Your task to perform on an android device: uninstall "Upside-Cash back on gas & food" Image 0: 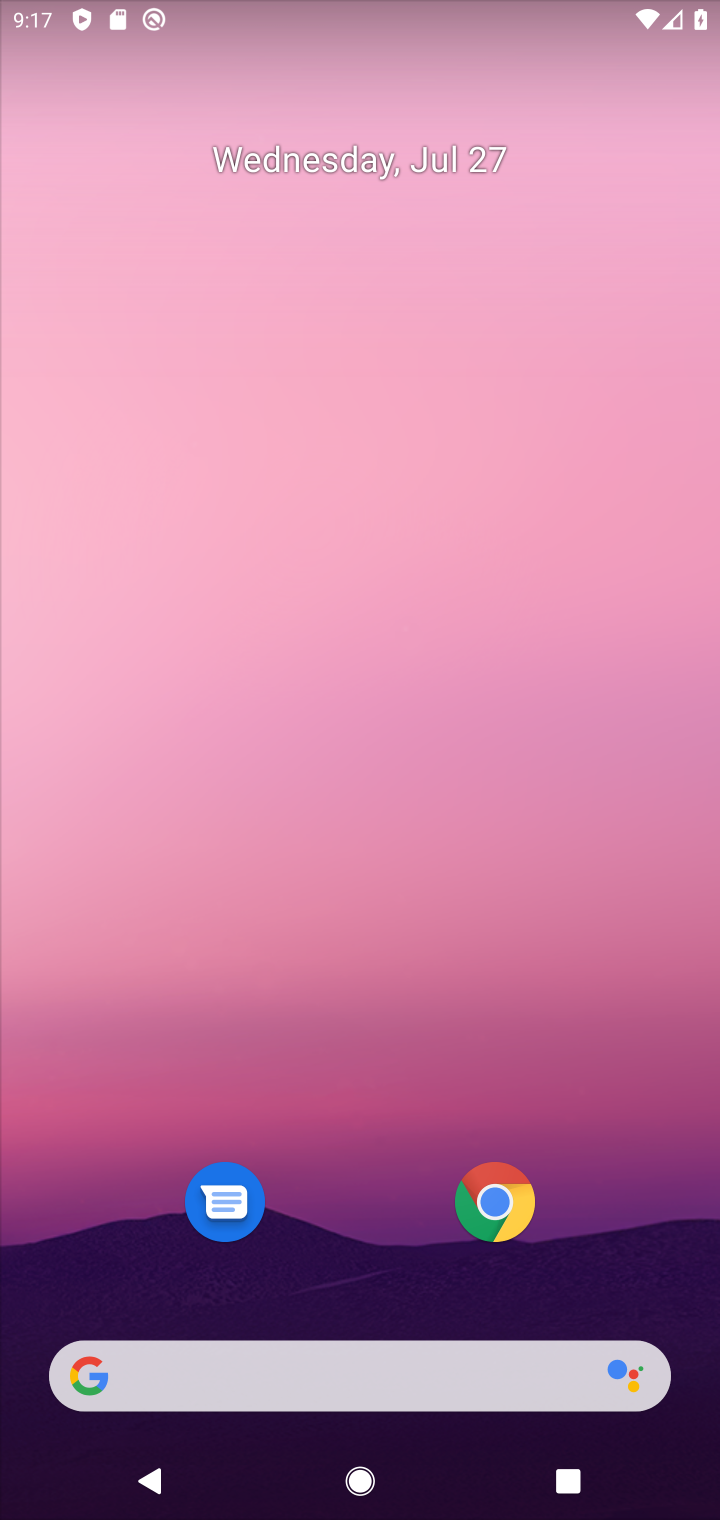
Step 0: drag from (318, 1338) to (303, 196)
Your task to perform on an android device: uninstall "Upside-Cash back on gas & food" Image 1: 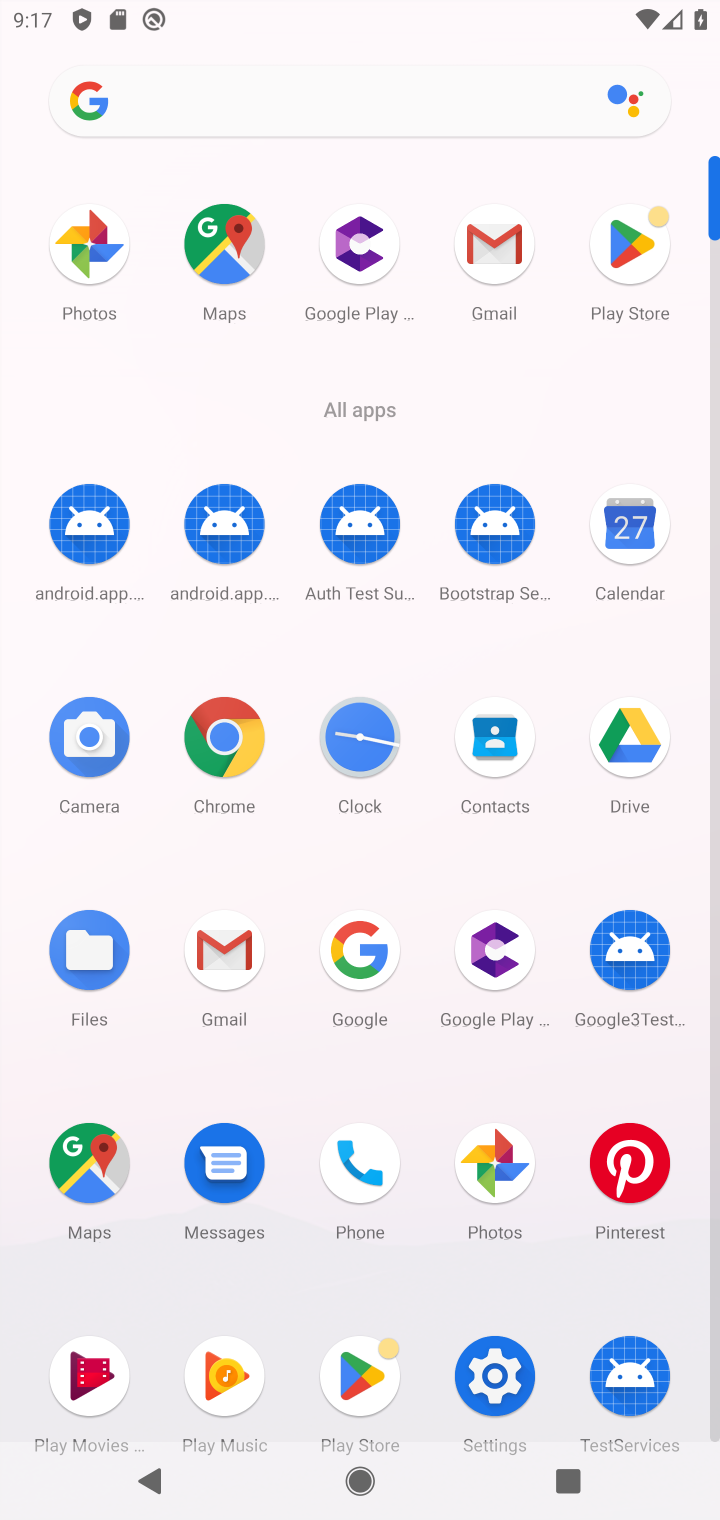
Step 1: click (348, 1375)
Your task to perform on an android device: uninstall "Upside-Cash back on gas & food" Image 2: 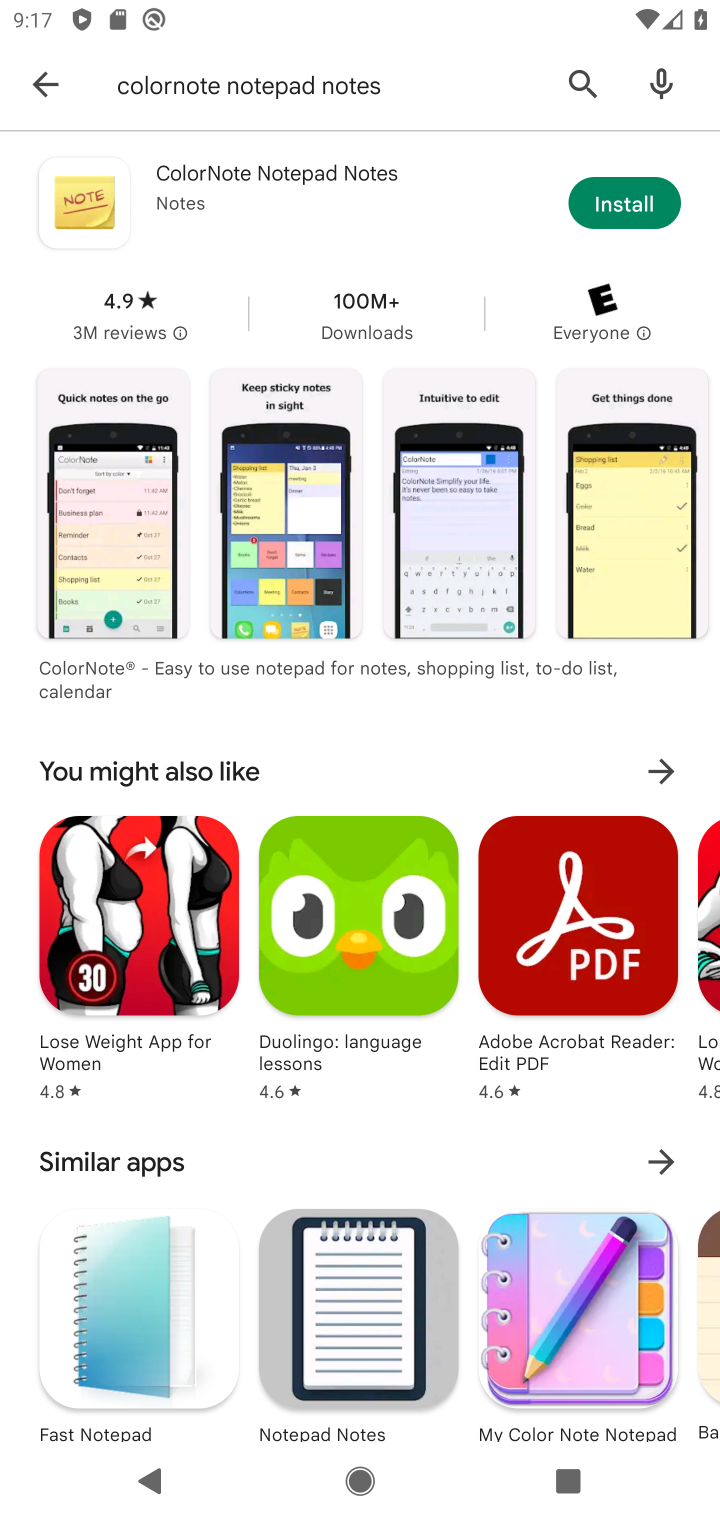
Step 2: click (584, 85)
Your task to perform on an android device: uninstall "Upside-Cash back on gas & food" Image 3: 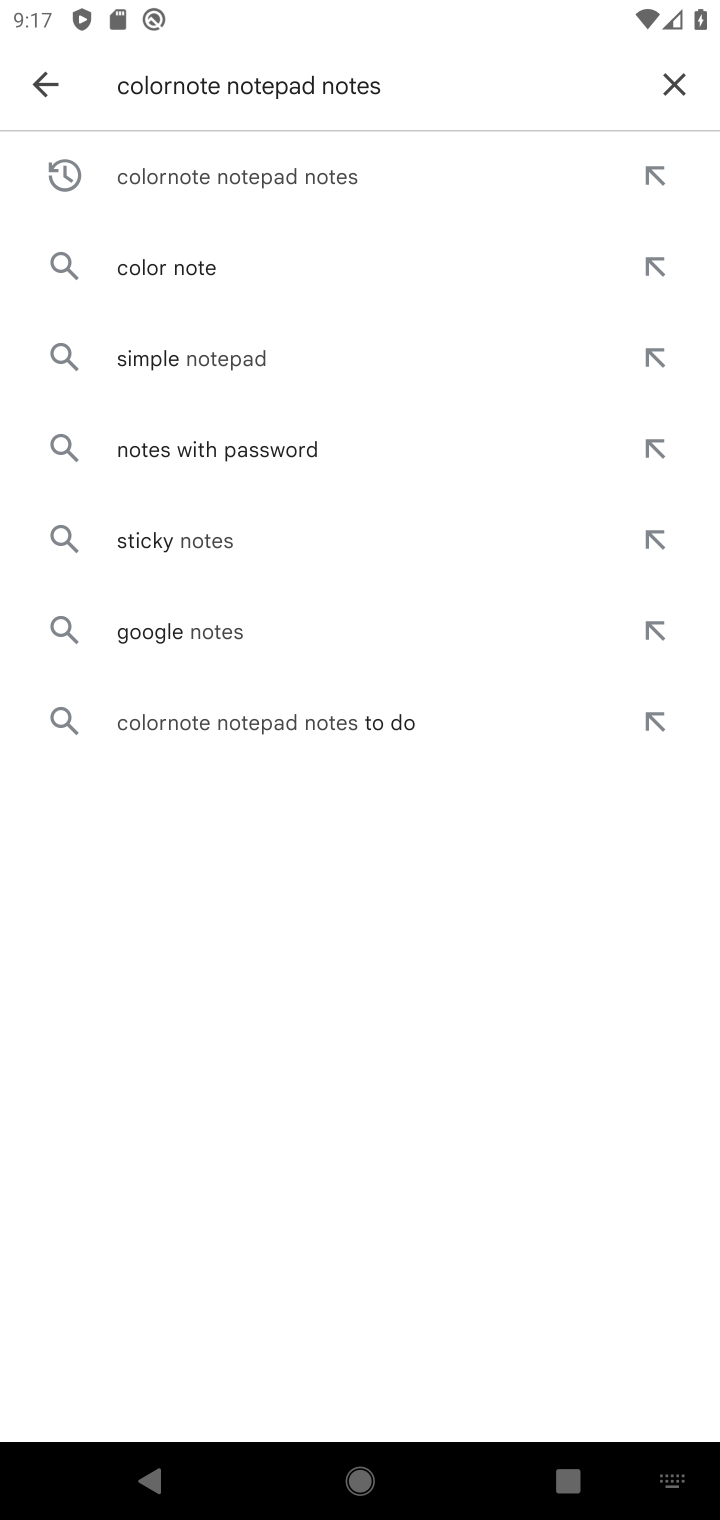
Step 3: click (675, 88)
Your task to perform on an android device: uninstall "Upside-Cash back on gas & food" Image 4: 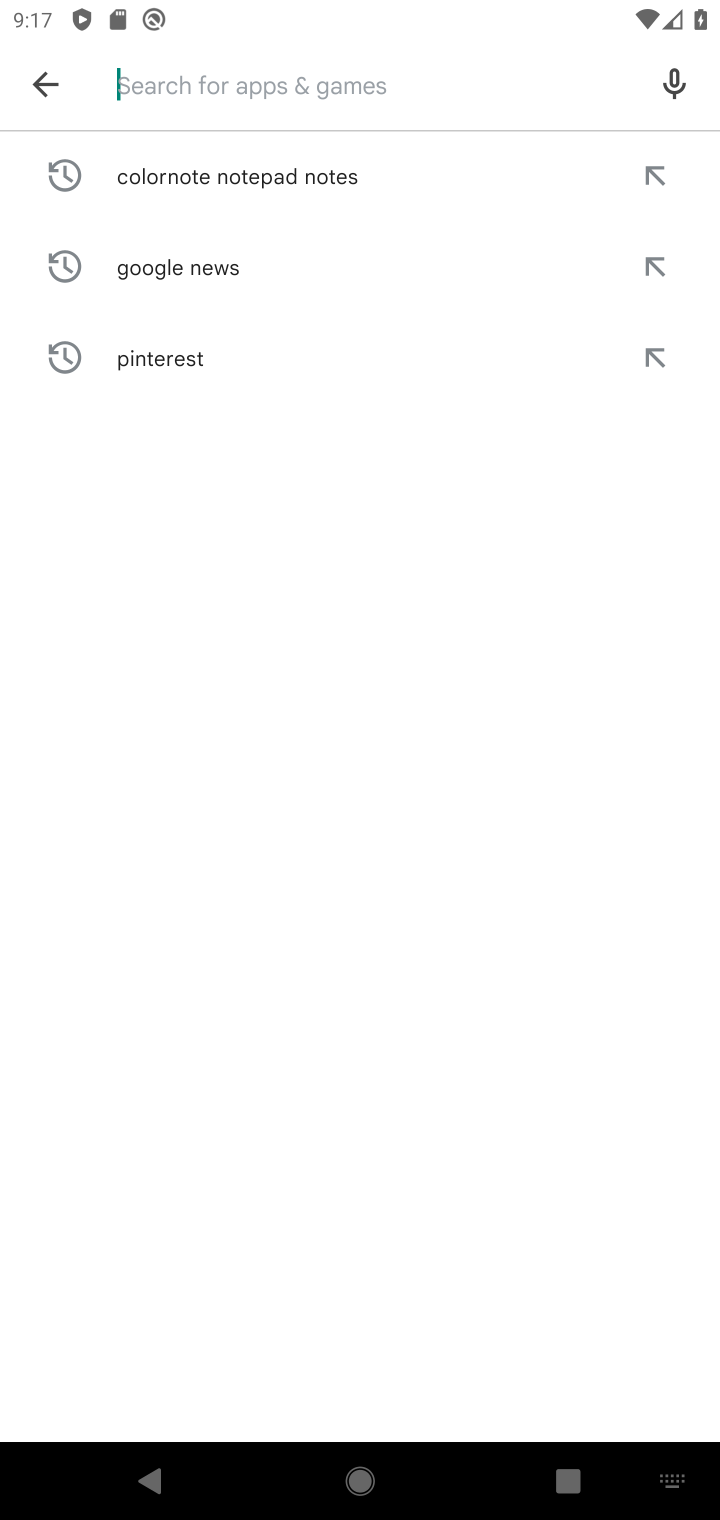
Step 4: type "Upside-Cash back on gas & food"
Your task to perform on an android device: uninstall "Upside-Cash back on gas & food" Image 5: 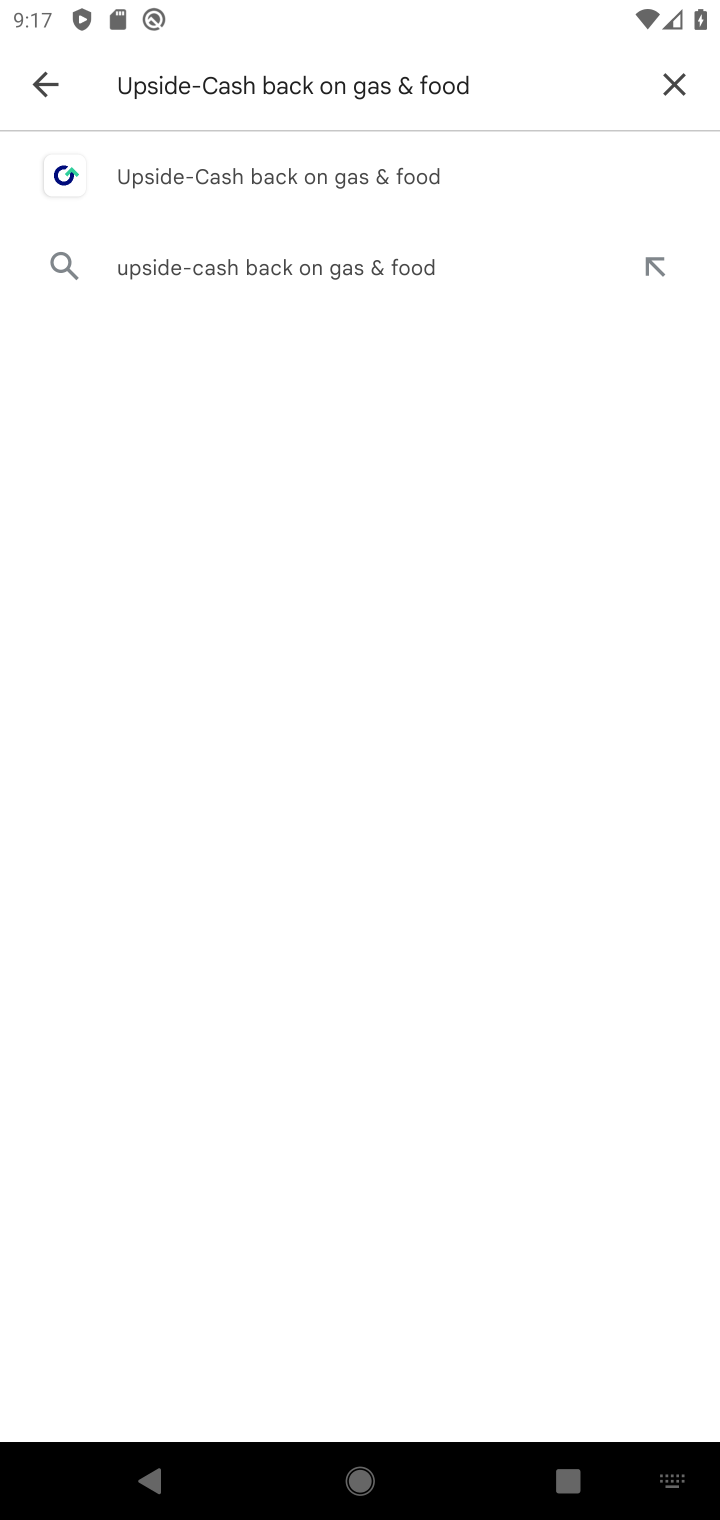
Step 5: click (242, 162)
Your task to perform on an android device: uninstall "Upside-Cash back on gas & food" Image 6: 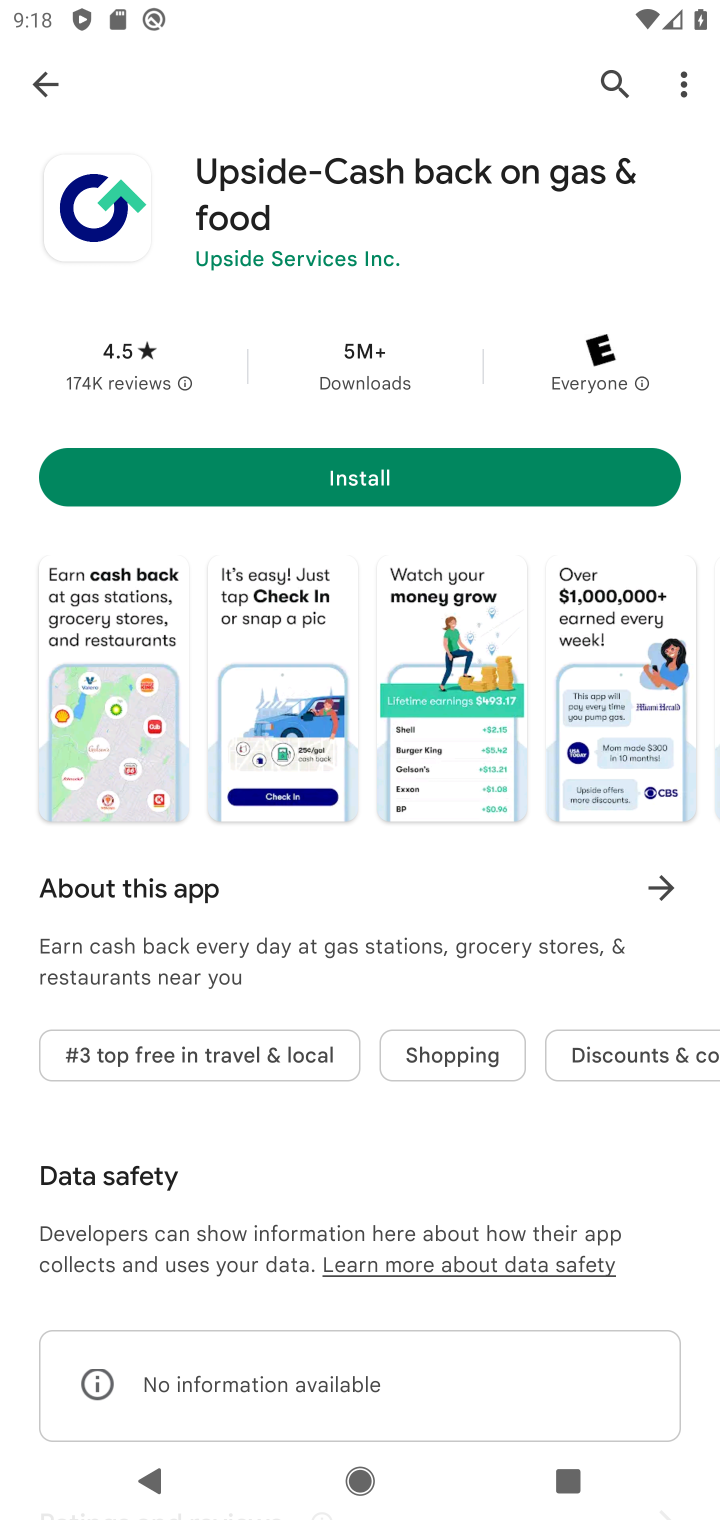
Step 6: task complete